Your task to perform on an android device: check storage Image 0: 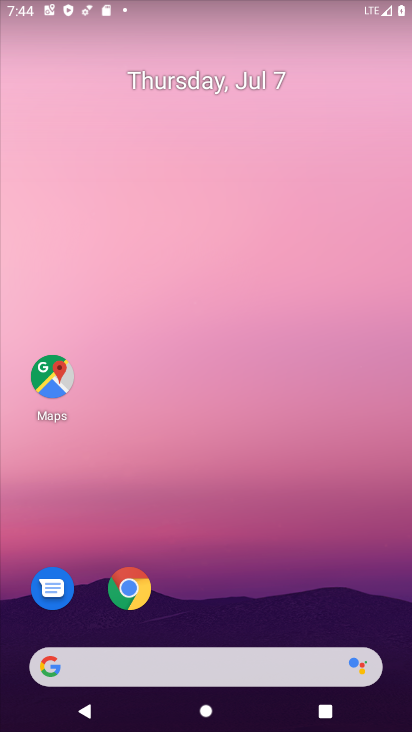
Step 0: drag from (343, 625) to (180, 127)
Your task to perform on an android device: check storage Image 1: 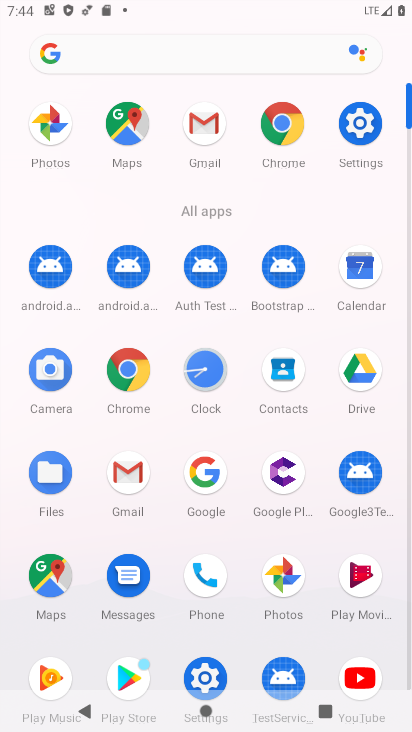
Step 1: click (370, 116)
Your task to perform on an android device: check storage Image 2: 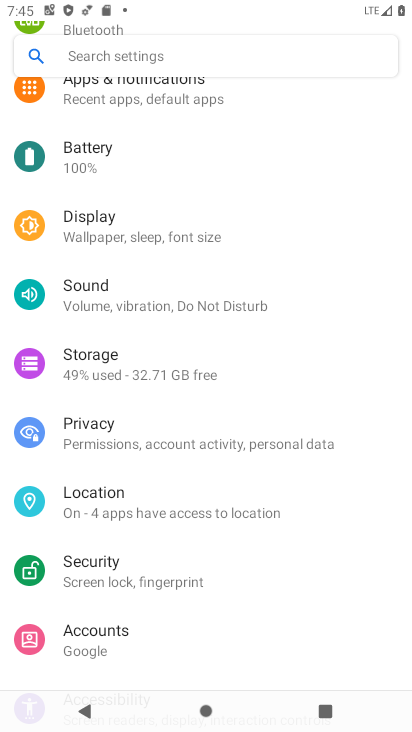
Step 2: click (144, 376)
Your task to perform on an android device: check storage Image 3: 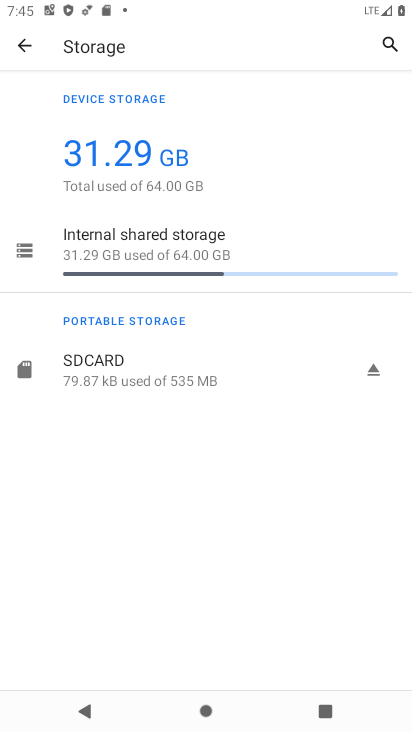
Step 3: task complete